Your task to perform on an android device: Show me the alarms in the clock app Image 0: 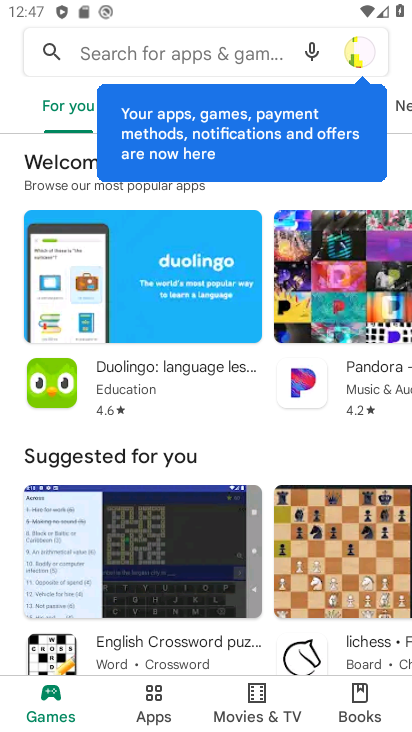
Step 0: press home button
Your task to perform on an android device: Show me the alarms in the clock app Image 1: 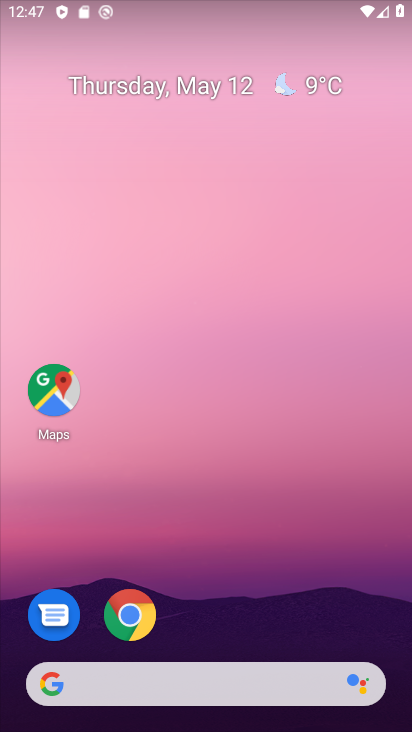
Step 1: drag from (233, 617) to (227, 195)
Your task to perform on an android device: Show me the alarms in the clock app Image 2: 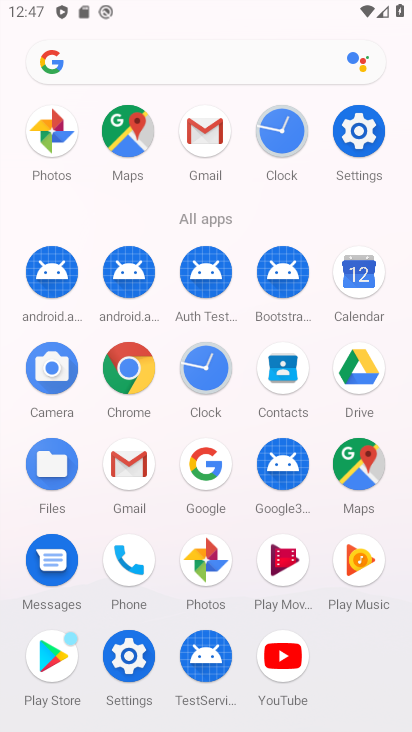
Step 2: click (206, 375)
Your task to perform on an android device: Show me the alarms in the clock app Image 3: 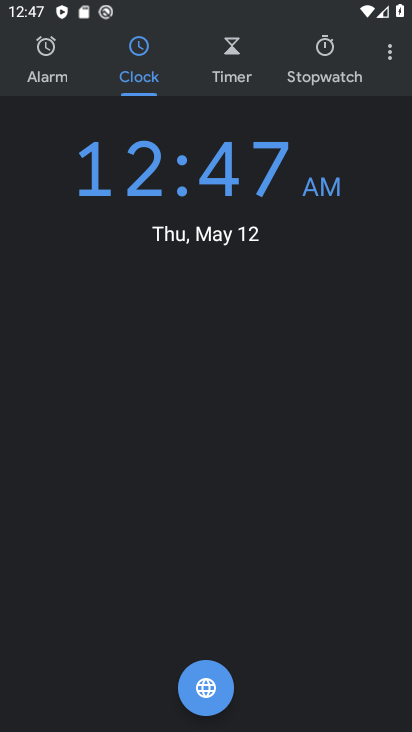
Step 3: click (39, 65)
Your task to perform on an android device: Show me the alarms in the clock app Image 4: 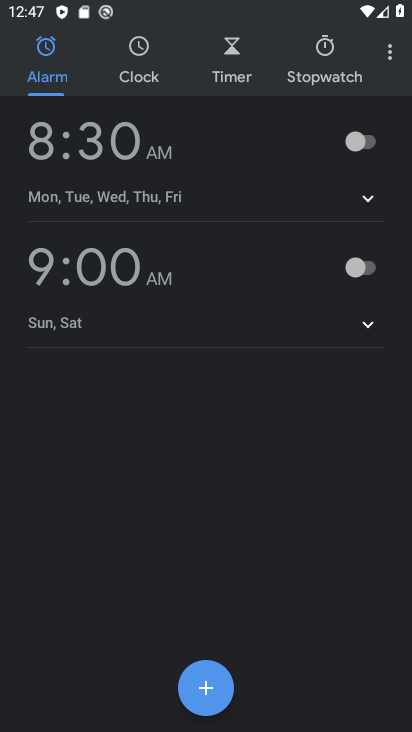
Step 4: task complete